Your task to perform on an android device: Open the web browser Image 0: 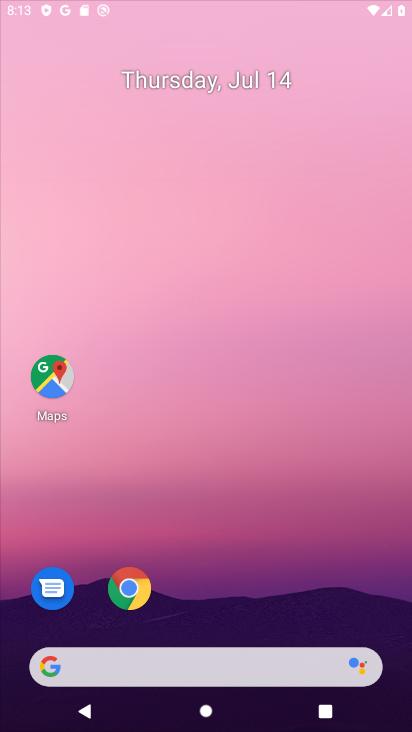
Step 0: click (162, 159)
Your task to perform on an android device: Open the web browser Image 1: 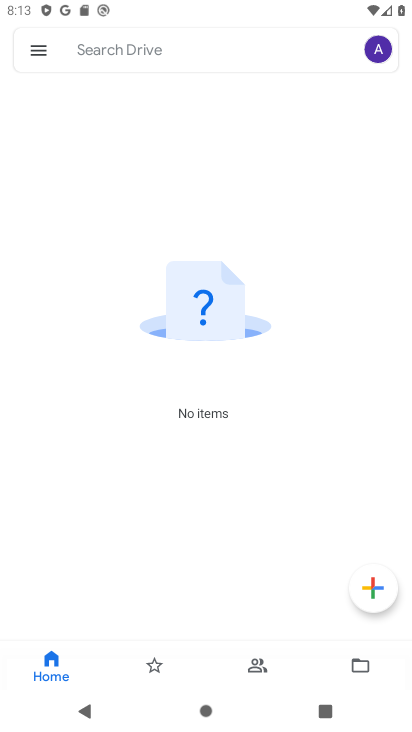
Step 1: press home button
Your task to perform on an android device: Open the web browser Image 2: 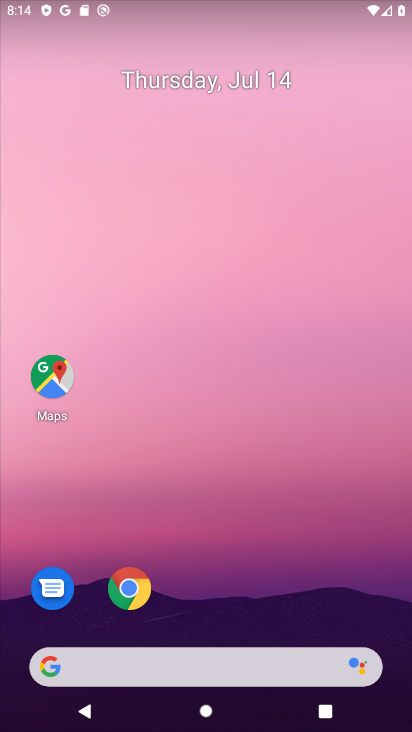
Step 2: click (132, 598)
Your task to perform on an android device: Open the web browser Image 3: 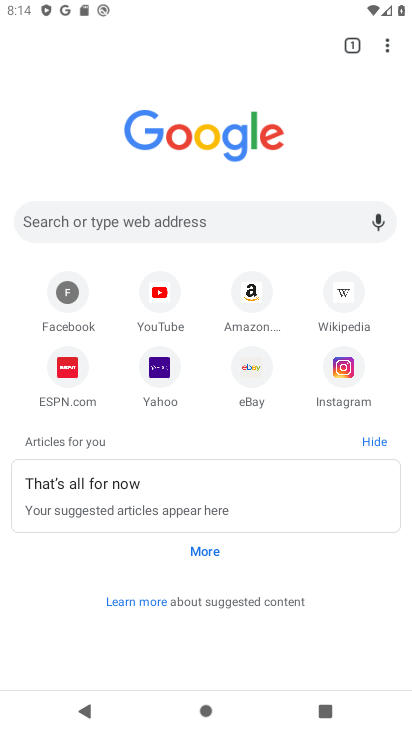
Step 3: task complete